Your task to perform on an android device: Open Google Maps Image 0: 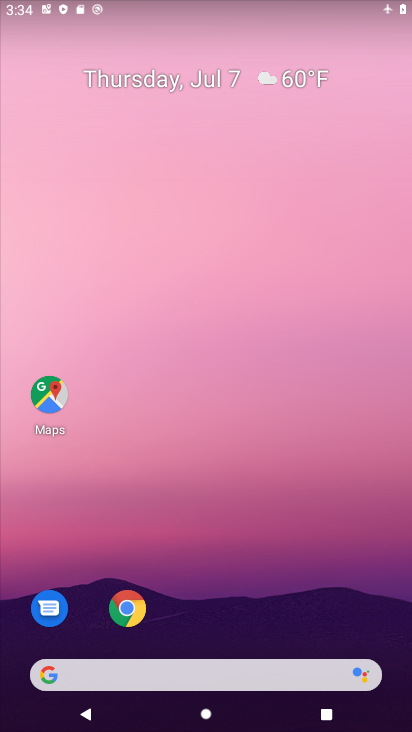
Step 0: click (41, 408)
Your task to perform on an android device: Open Google Maps Image 1: 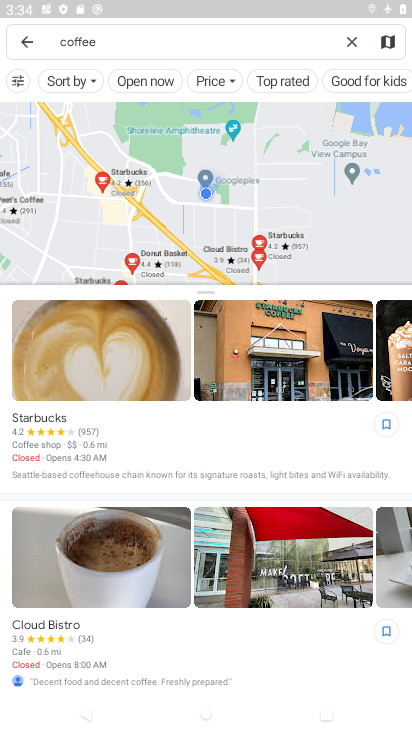
Step 1: task complete